Your task to perform on an android device: open app "Viber Messenger" (install if not already installed) and enter user name: "blameless@icloud.com" and password: "Yoknapatawpha" Image 0: 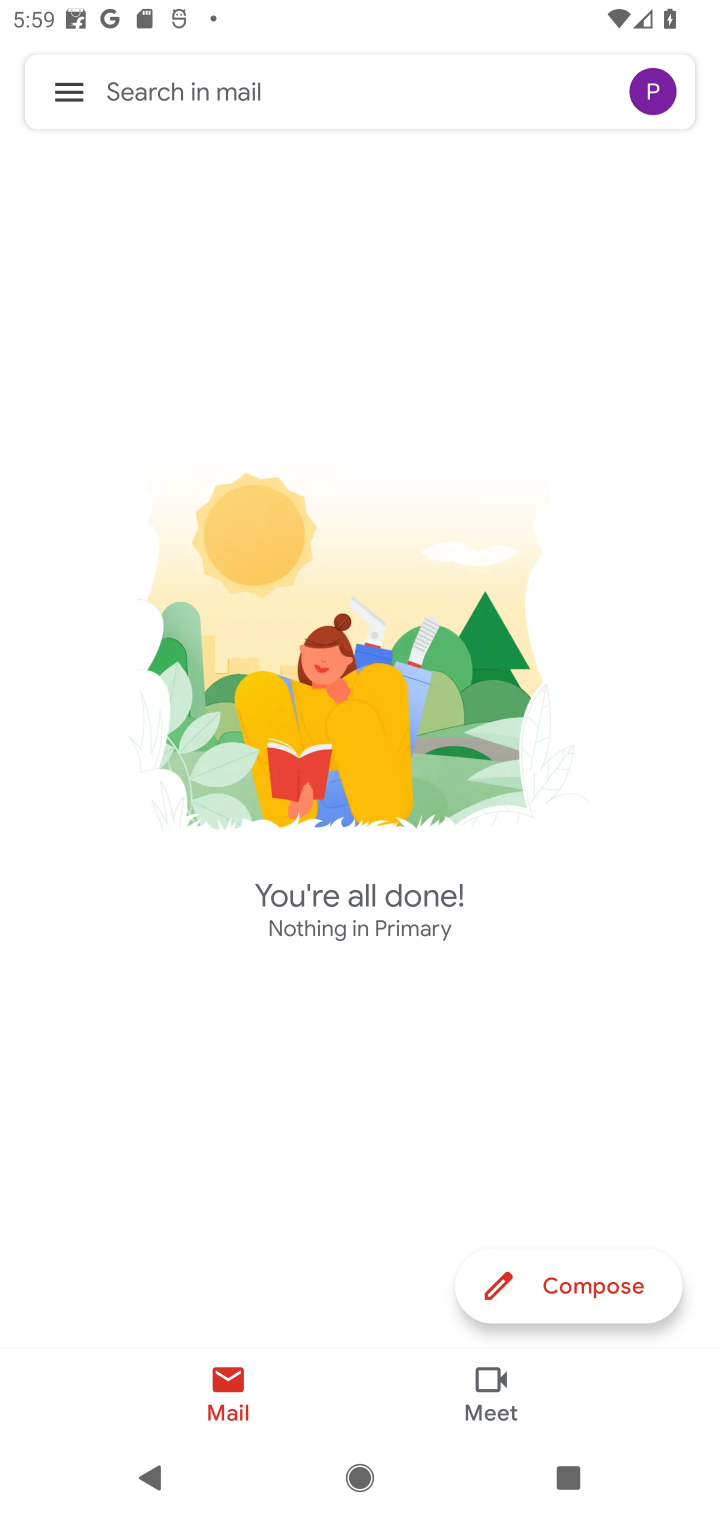
Step 0: press home button
Your task to perform on an android device: open app "Viber Messenger" (install if not already installed) and enter user name: "blameless@icloud.com" and password: "Yoknapatawpha" Image 1: 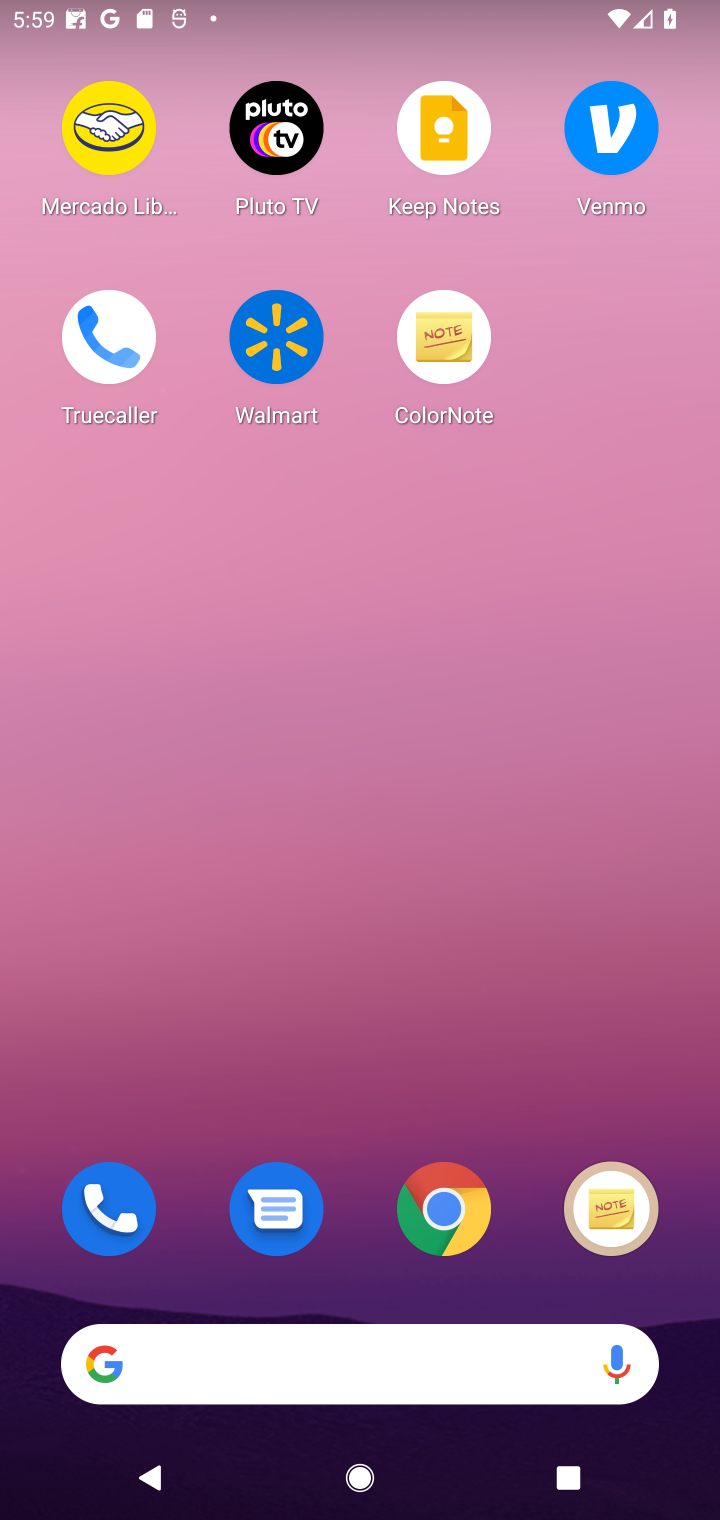
Step 1: drag from (333, 1285) to (364, 174)
Your task to perform on an android device: open app "Viber Messenger" (install if not already installed) and enter user name: "blameless@icloud.com" and password: "Yoknapatawpha" Image 2: 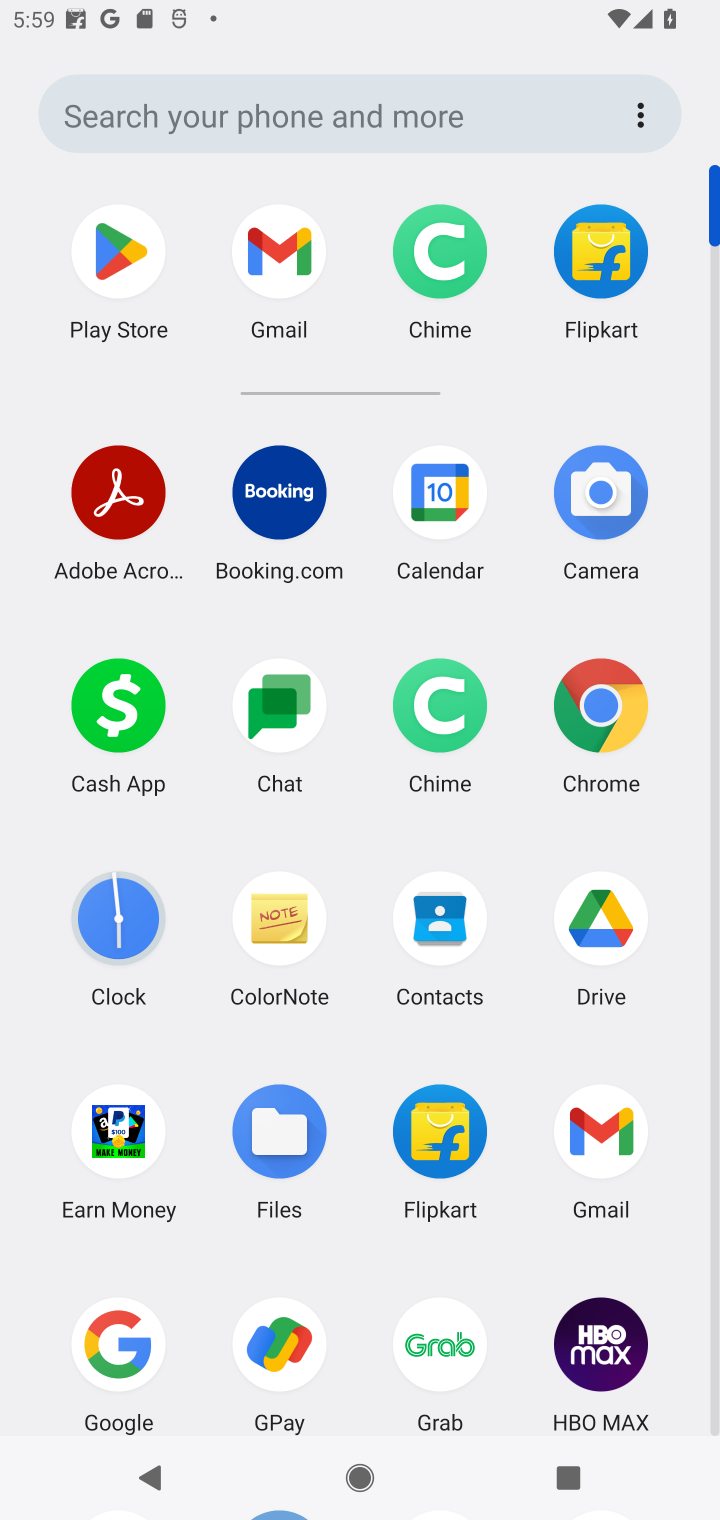
Step 2: click (122, 312)
Your task to perform on an android device: open app "Viber Messenger" (install if not already installed) and enter user name: "blameless@icloud.com" and password: "Yoknapatawpha" Image 3: 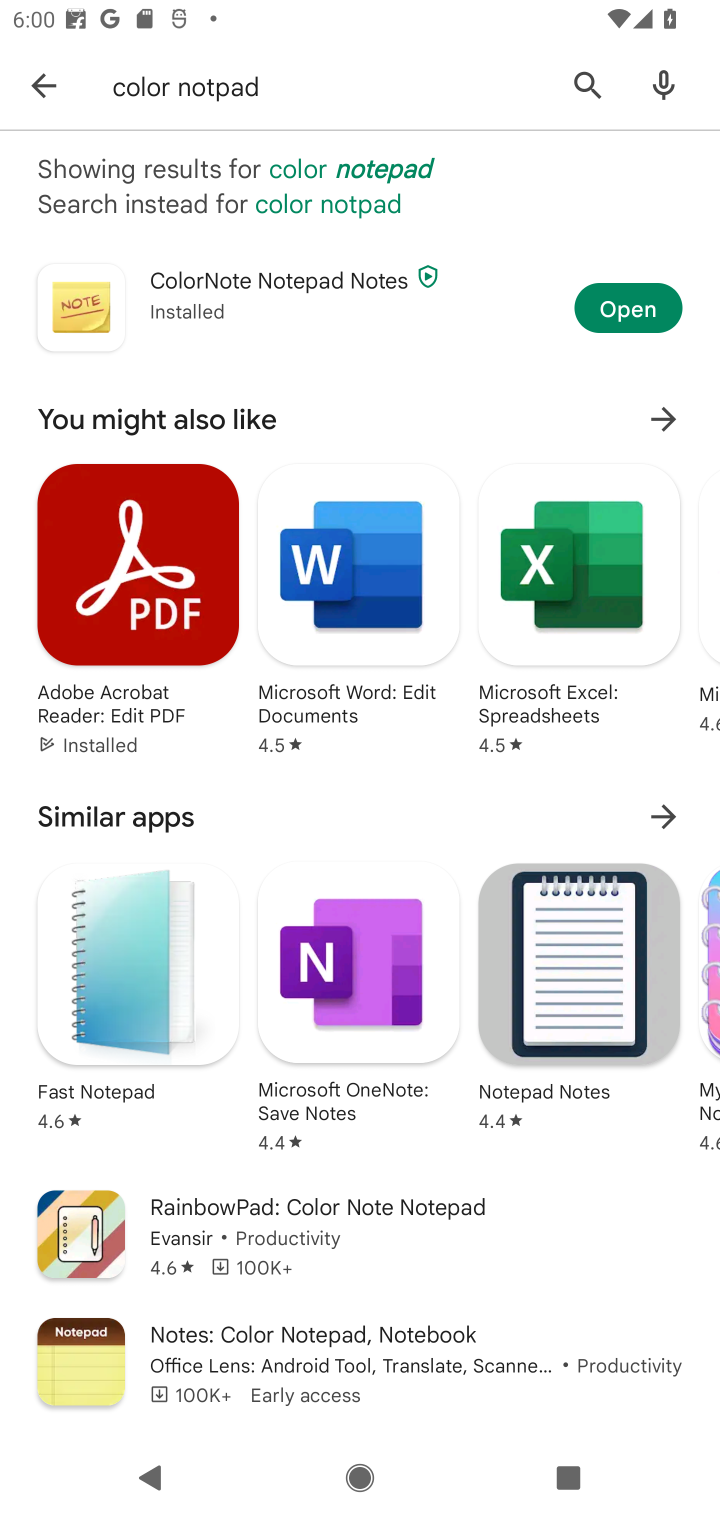
Step 3: click (564, 96)
Your task to perform on an android device: open app "Viber Messenger" (install if not already installed) and enter user name: "blameless@icloud.com" and password: "Yoknapatawpha" Image 4: 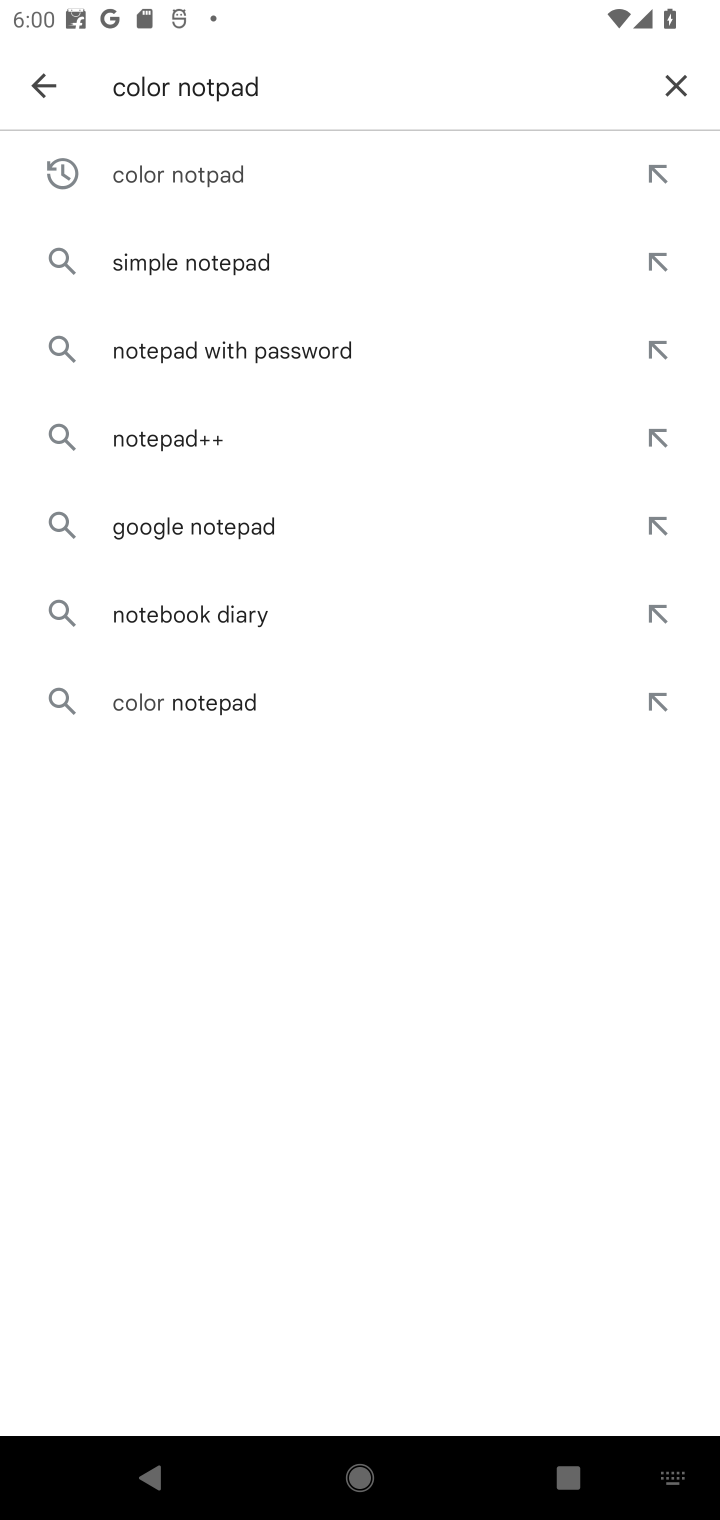
Step 4: click (655, 89)
Your task to perform on an android device: open app "Viber Messenger" (install if not already installed) and enter user name: "blameless@icloud.com" and password: "Yoknapatawpha" Image 5: 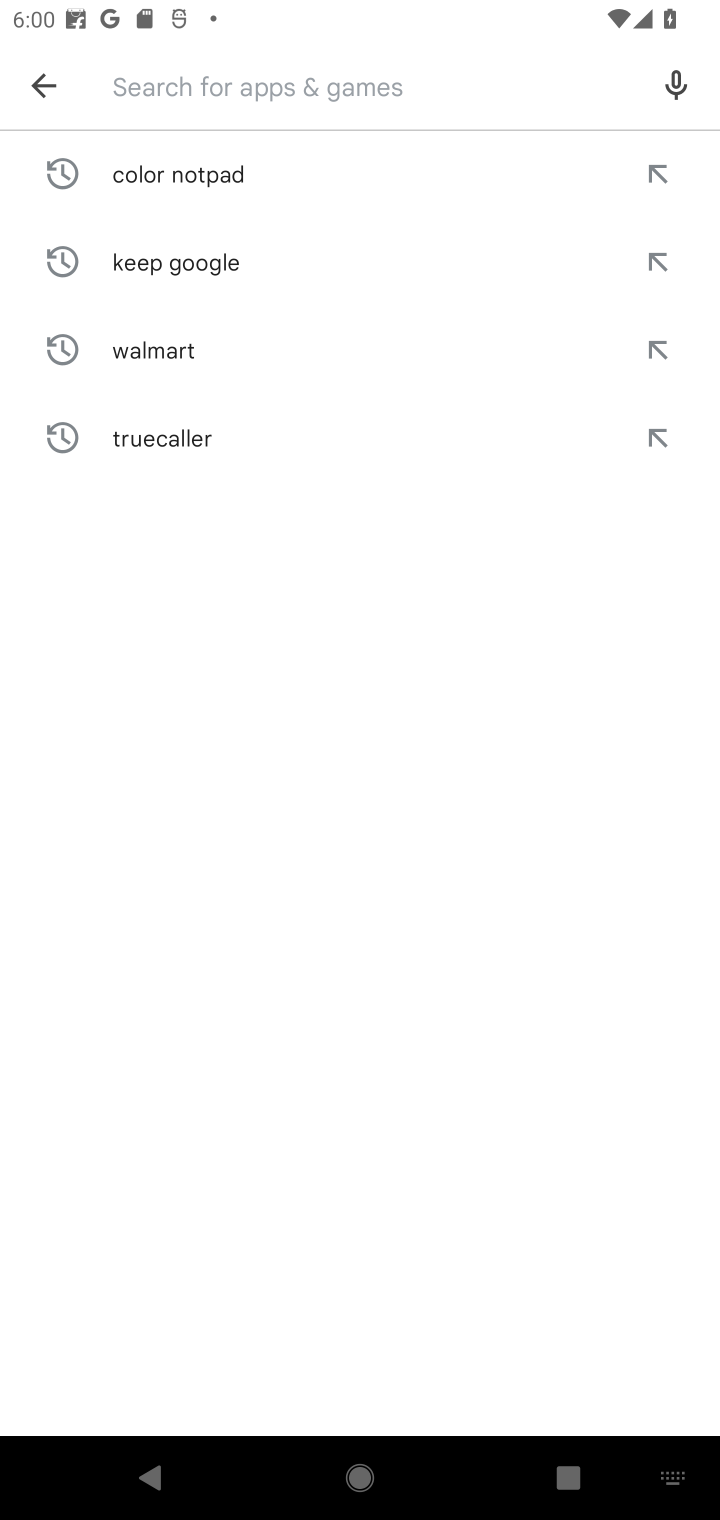
Step 5: type "messenger"
Your task to perform on an android device: open app "Viber Messenger" (install if not already installed) and enter user name: "blameless@icloud.com" and password: "Yoknapatawpha" Image 6: 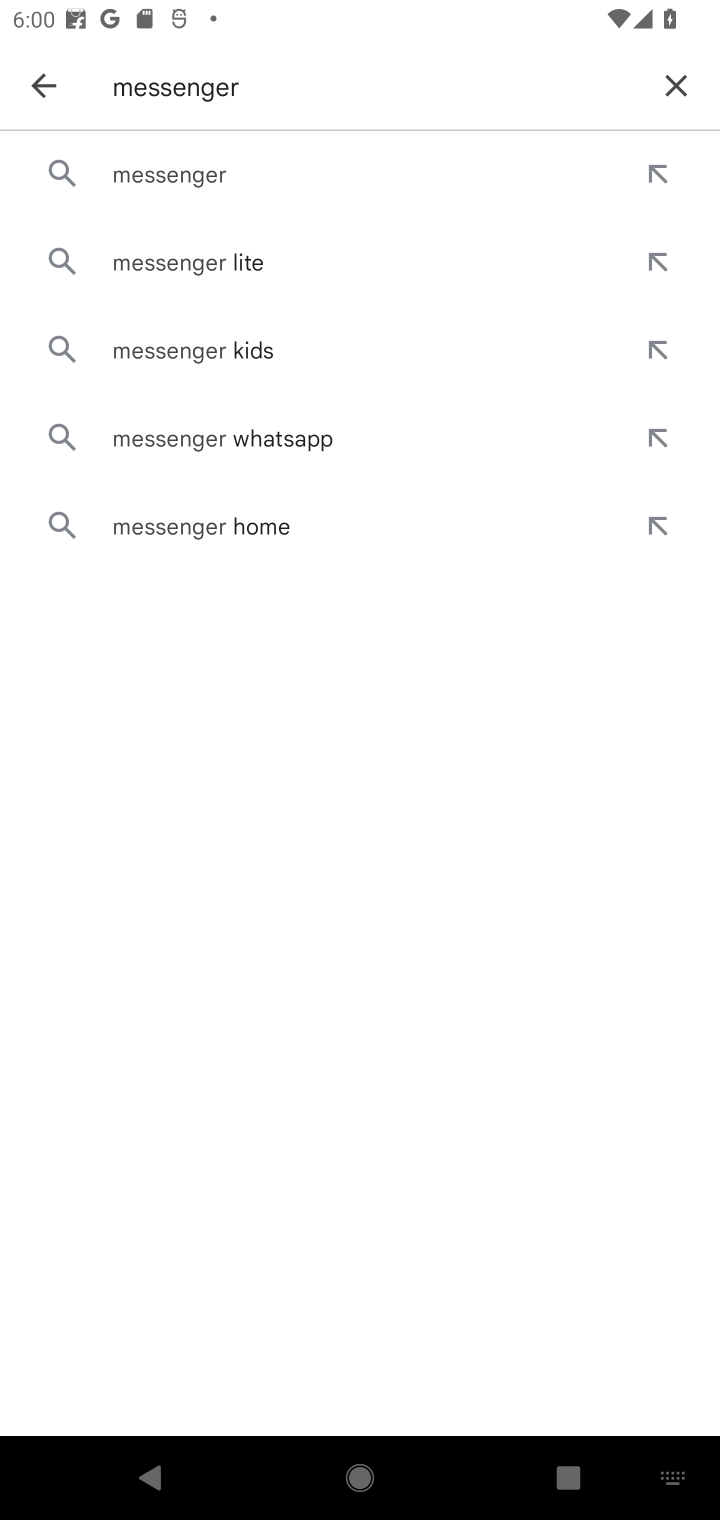
Step 6: click (273, 183)
Your task to perform on an android device: open app "Viber Messenger" (install if not already installed) and enter user name: "blameless@icloud.com" and password: "Yoknapatawpha" Image 7: 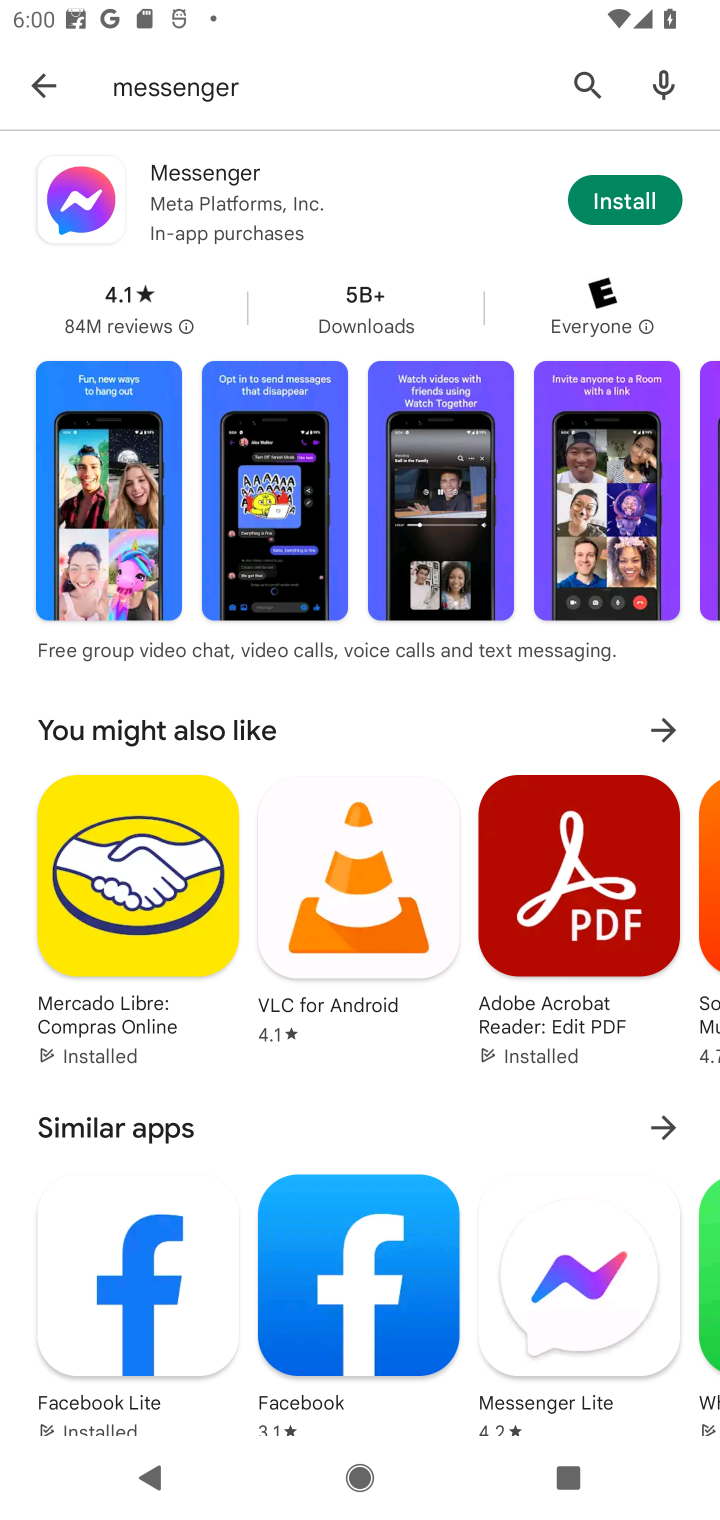
Step 7: click (560, 197)
Your task to perform on an android device: open app "Viber Messenger" (install if not already installed) and enter user name: "blameless@icloud.com" and password: "Yoknapatawpha" Image 8: 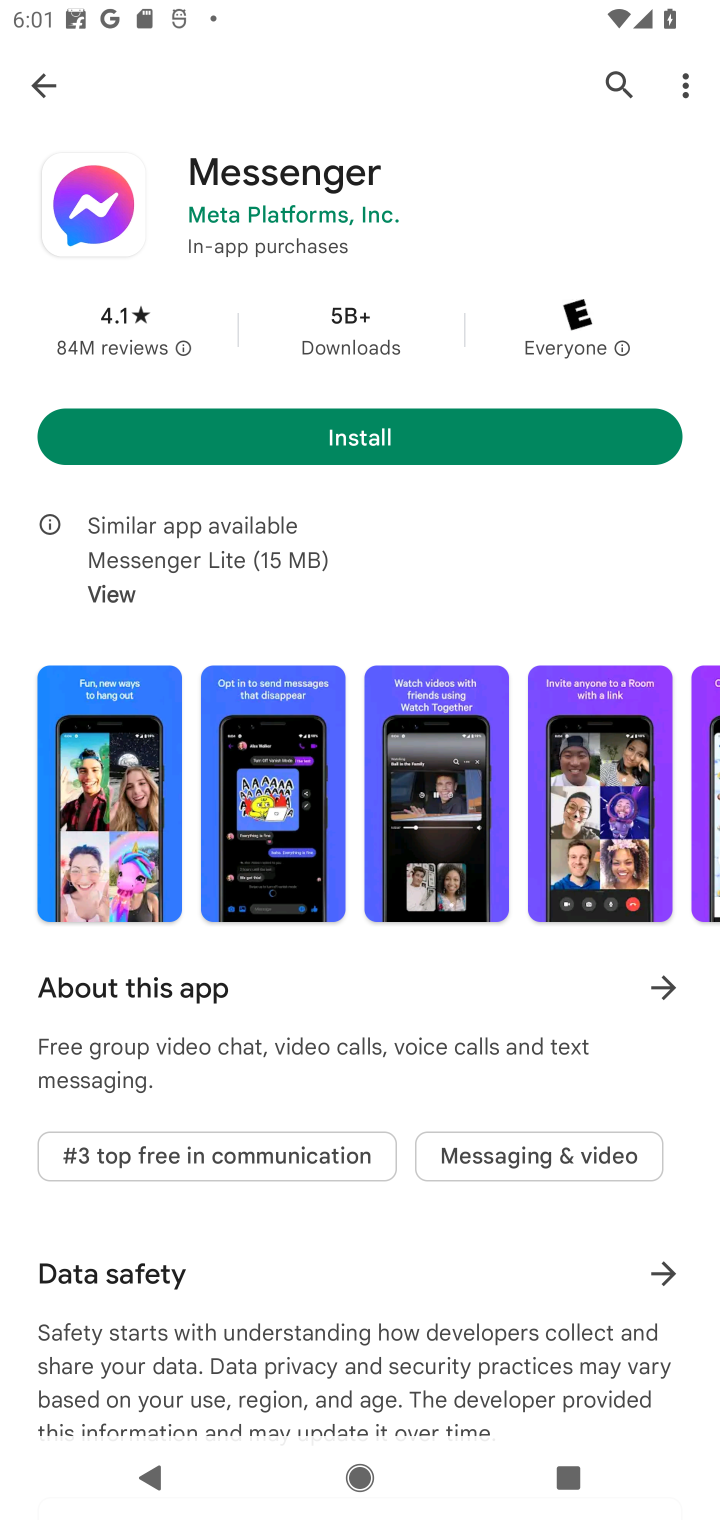
Step 8: click (418, 416)
Your task to perform on an android device: open app "Viber Messenger" (install if not already installed) and enter user name: "blameless@icloud.com" and password: "Yoknapatawpha" Image 9: 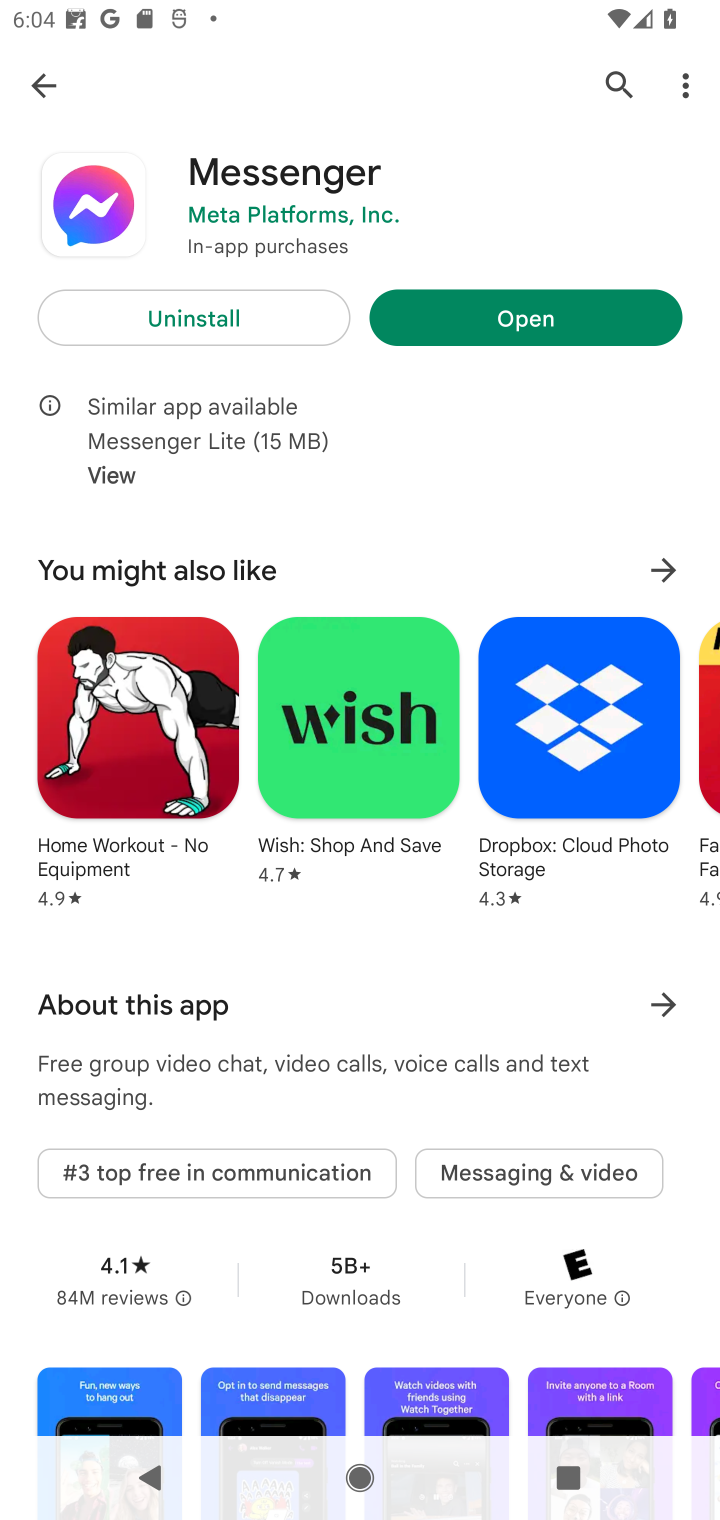
Step 9: click (520, 311)
Your task to perform on an android device: open app "Viber Messenger" (install if not already installed) and enter user name: "blameless@icloud.com" and password: "Yoknapatawpha" Image 10: 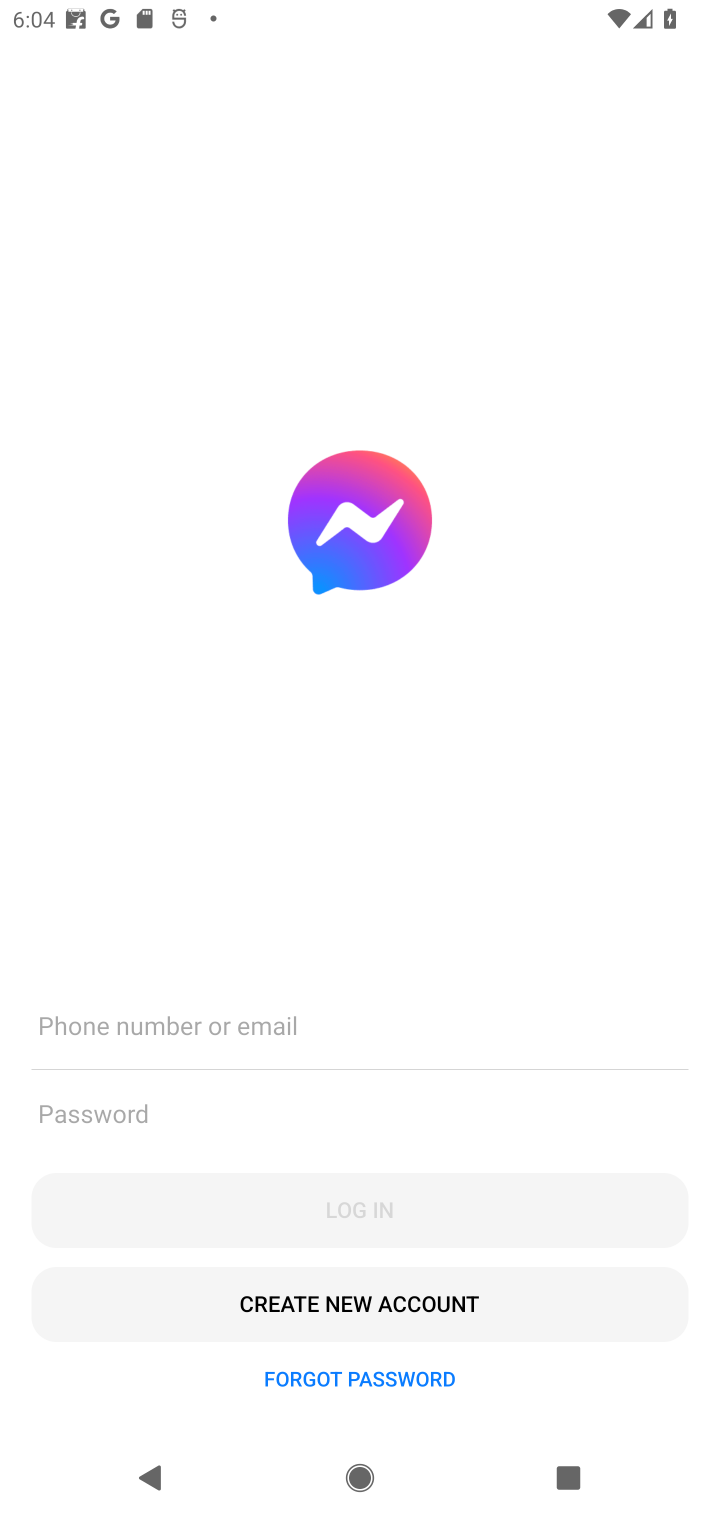
Step 10: click (217, 1015)
Your task to perform on an android device: open app "Viber Messenger" (install if not already installed) and enter user name: "blameless@icloud.com" and password: "Yoknapatawpha" Image 11: 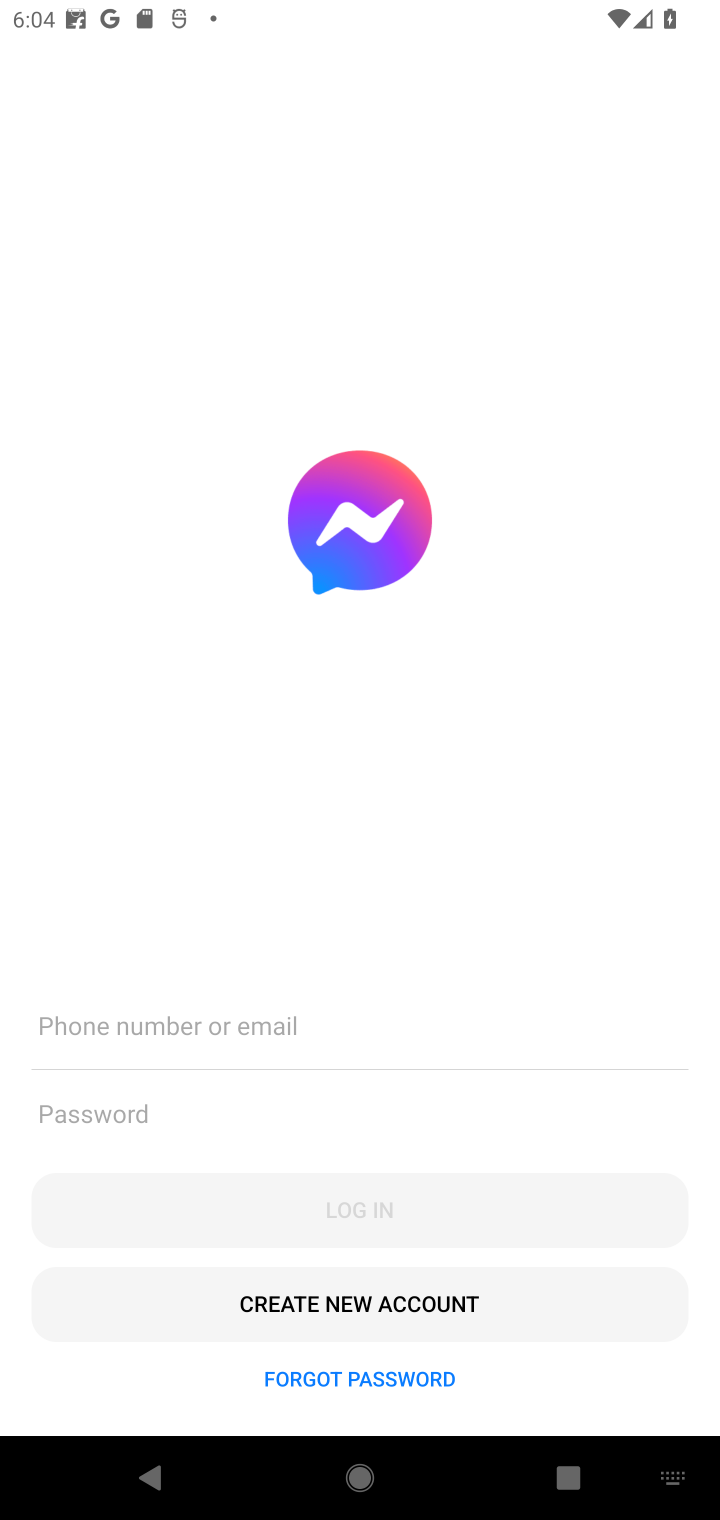
Step 11: type "blameless@icloud.com"
Your task to perform on an android device: open app "Viber Messenger" (install if not already installed) and enter user name: "blameless@icloud.com" and password: "Yoknapatawpha" Image 12: 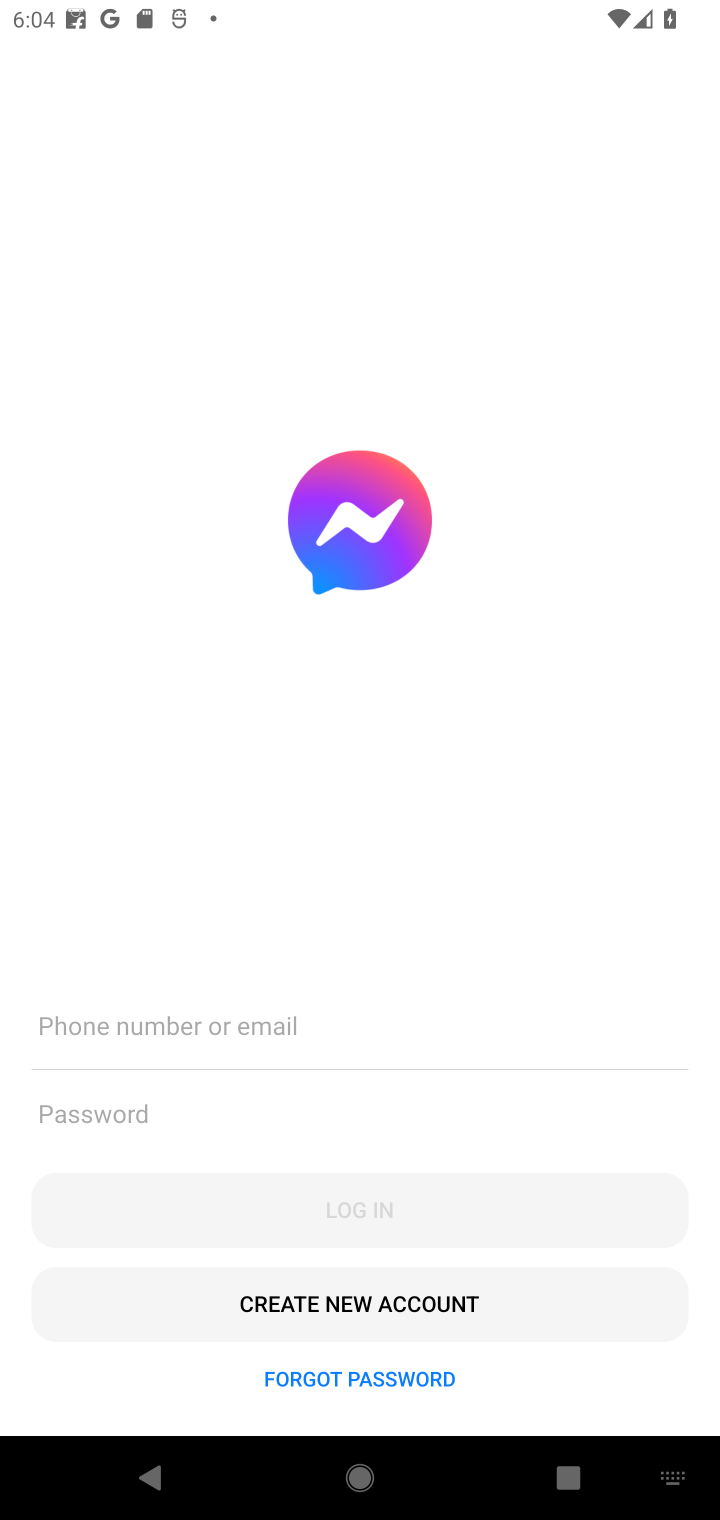
Step 12: click (164, 1112)
Your task to perform on an android device: open app "Viber Messenger" (install if not already installed) and enter user name: "blameless@icloud.com" and password: "Yoknapatawpha" Image 13: 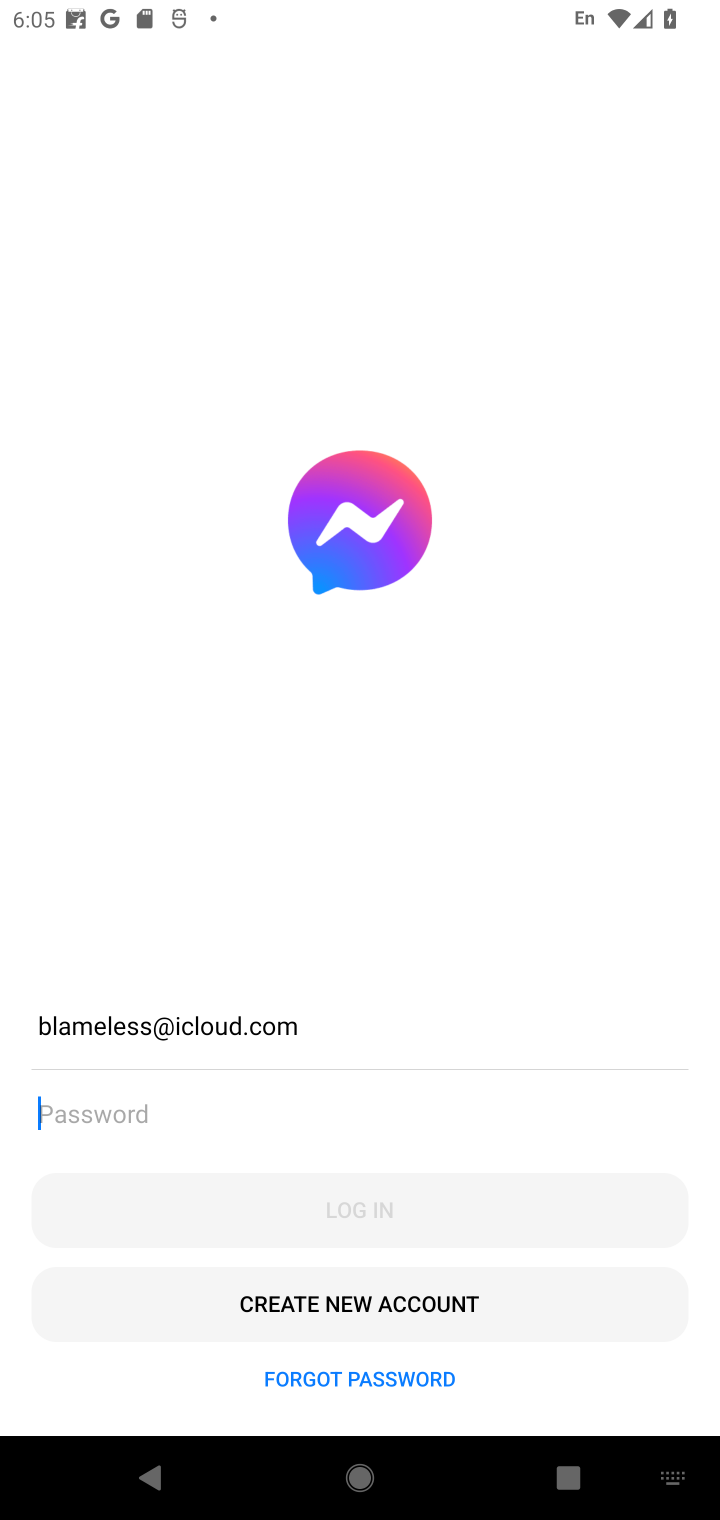
Step 13: click (164, 1112)
Your task to perform on an android device: open app "Viber Messenger" (install if not already installed) and enter user name: "blameless@icloud.com" and password: "Yoknapatawpha" Image 14: 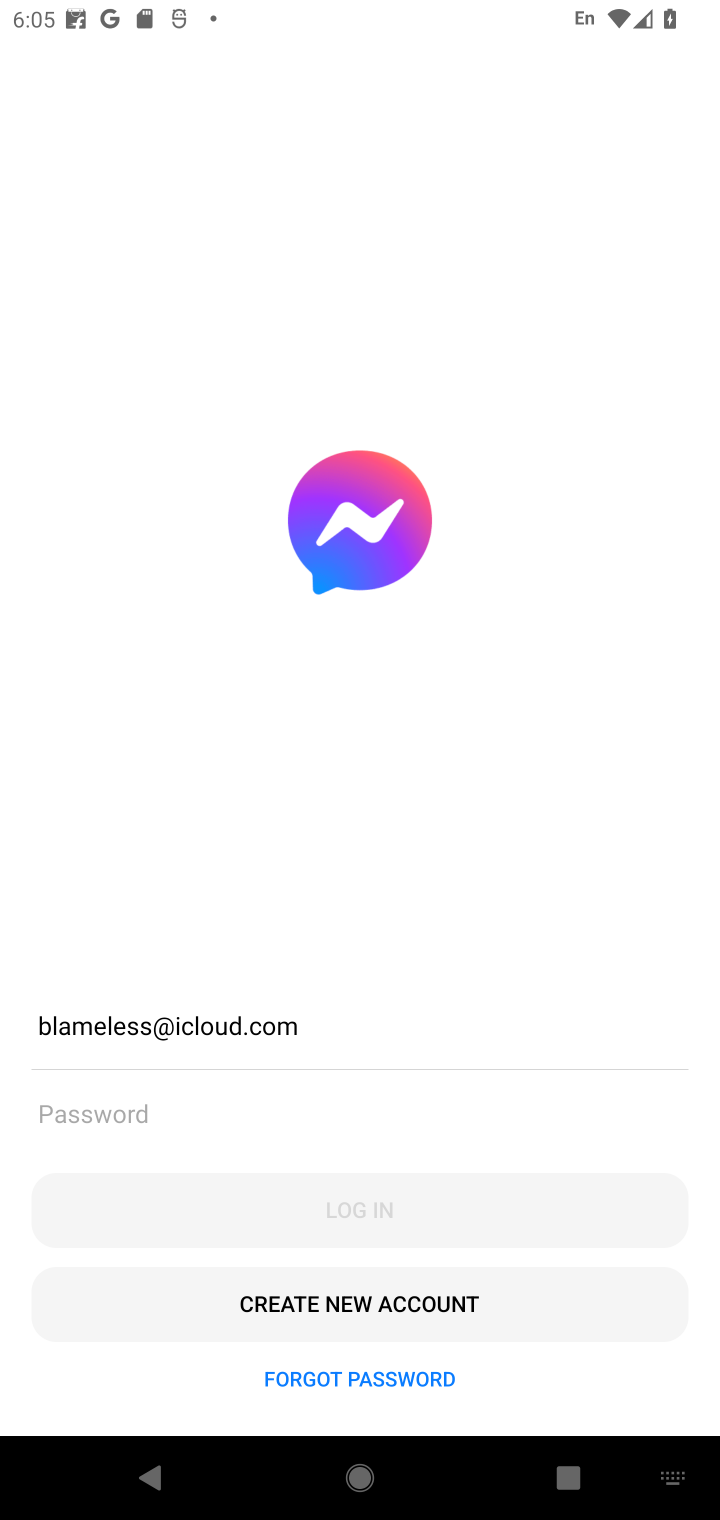
Step 14: click (164, 1112)
Your task to perform on an android device: open app "Viber Messenger" (install if not already installed) and enter user name: "blameless@icloud.com" and password: "Yoknapatawpha" Image 15: 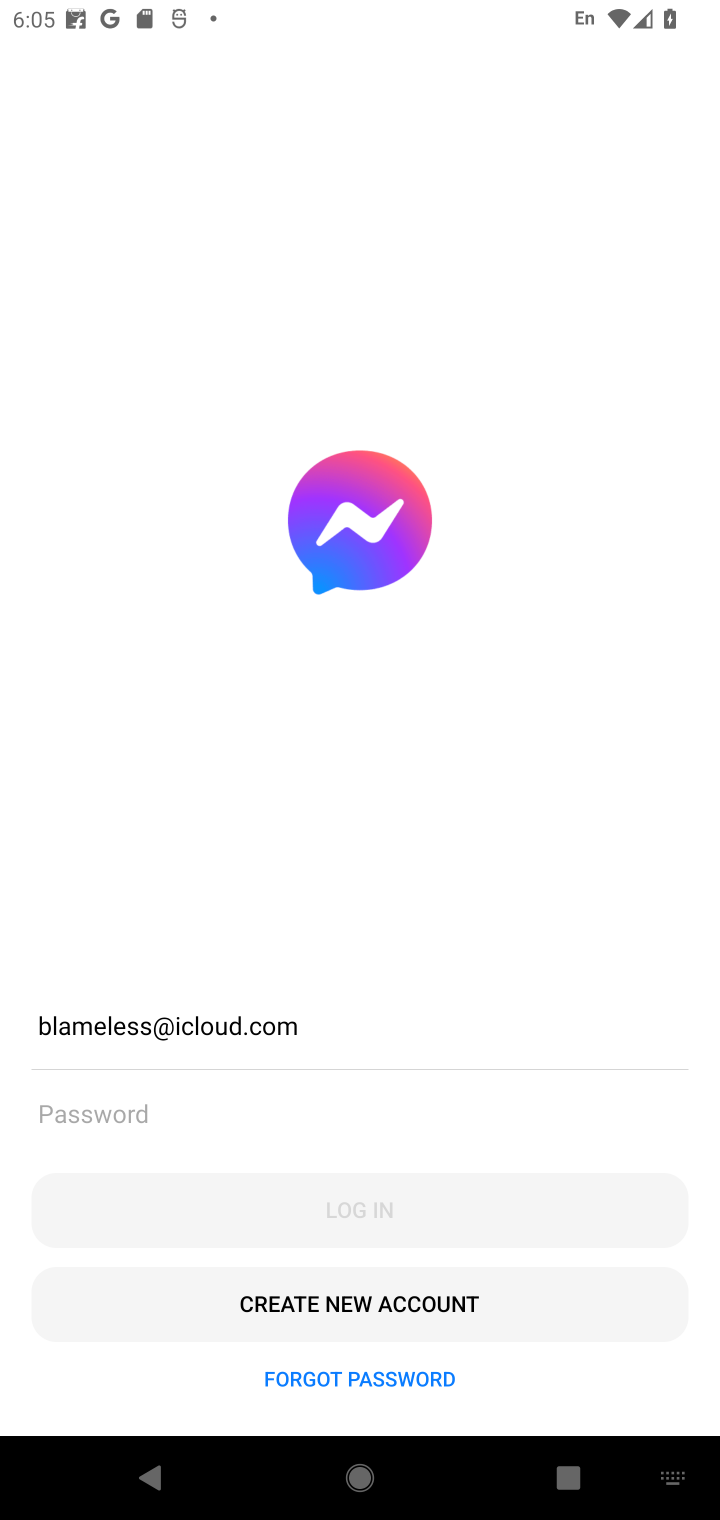
Step 15: click (142, 1111)
Your task to perform on an android device: open app "Viber Messenger" (install if not already installed) and enter user name: "blameless@icloud.com" and password: "Yoknapatawpha" Image 16: 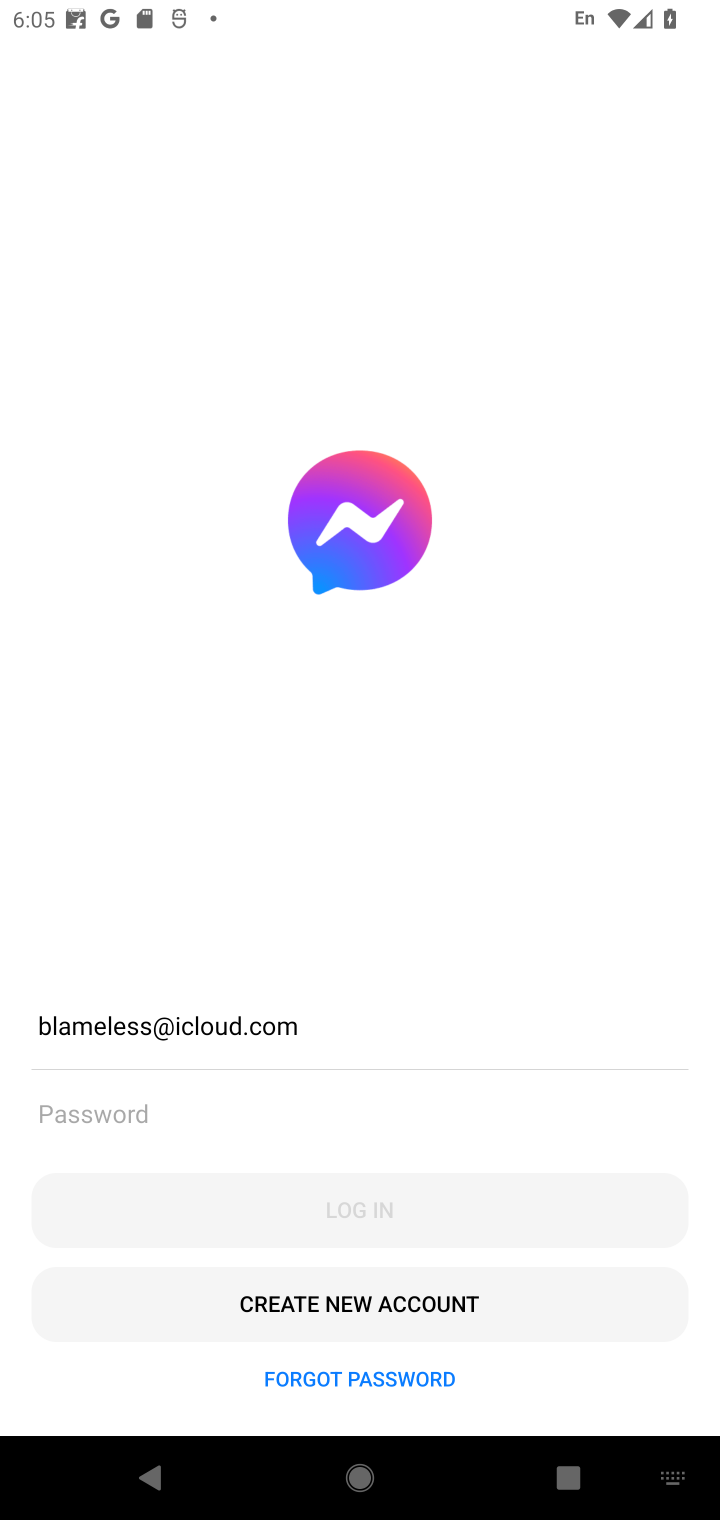
Step 16: type "Yoknapatawpha"
Your task to perform on an android device: open app "Viber Messenger" (install if not already installed) and enter user name: "blameless@icloud.com" and password: "Yoknapatawpha" Image 17: 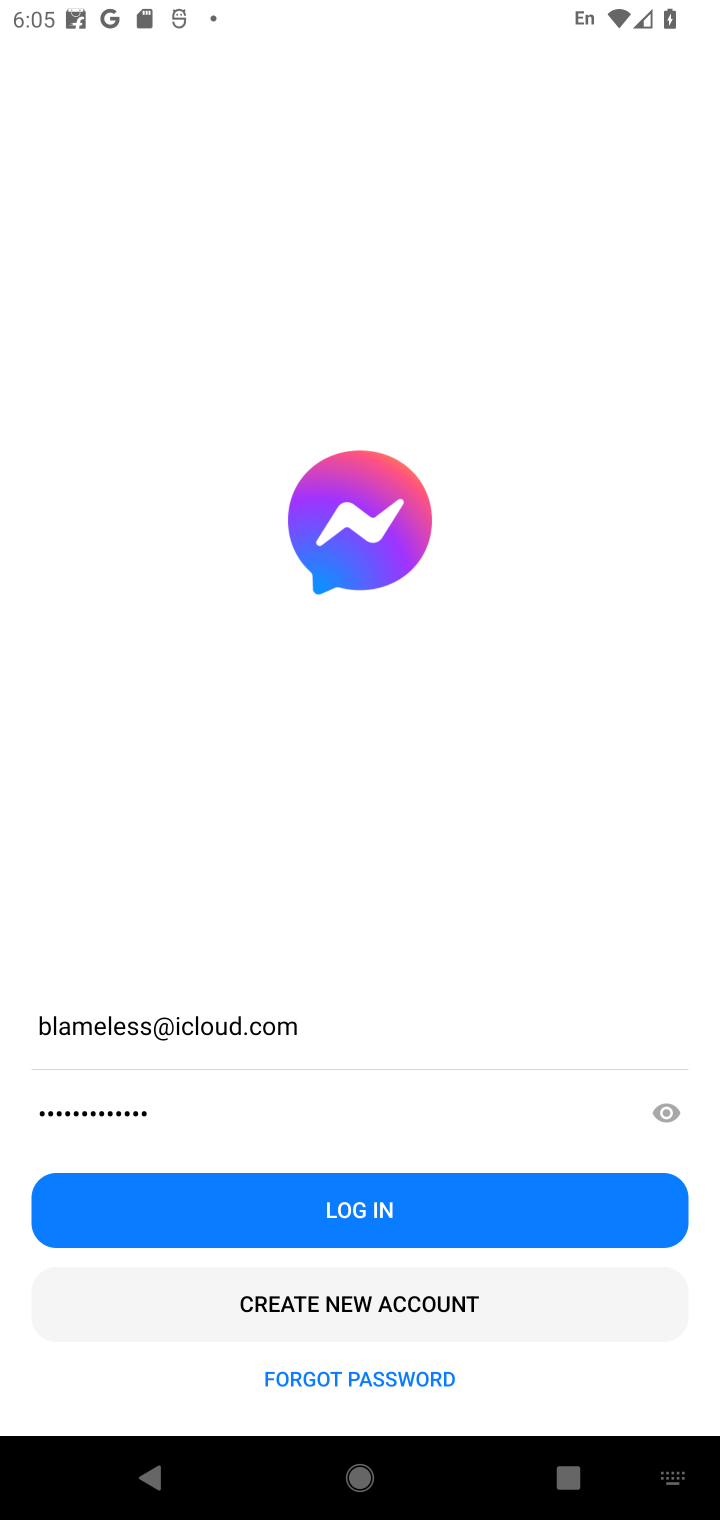
Step 17: click (276, 1208)
Your task to perform on an android device: open app "Viber Messenger" (install if not already installed) and enter user name: "blameless@icloud.com" and password: "Yoknapatawpha" Image 18: 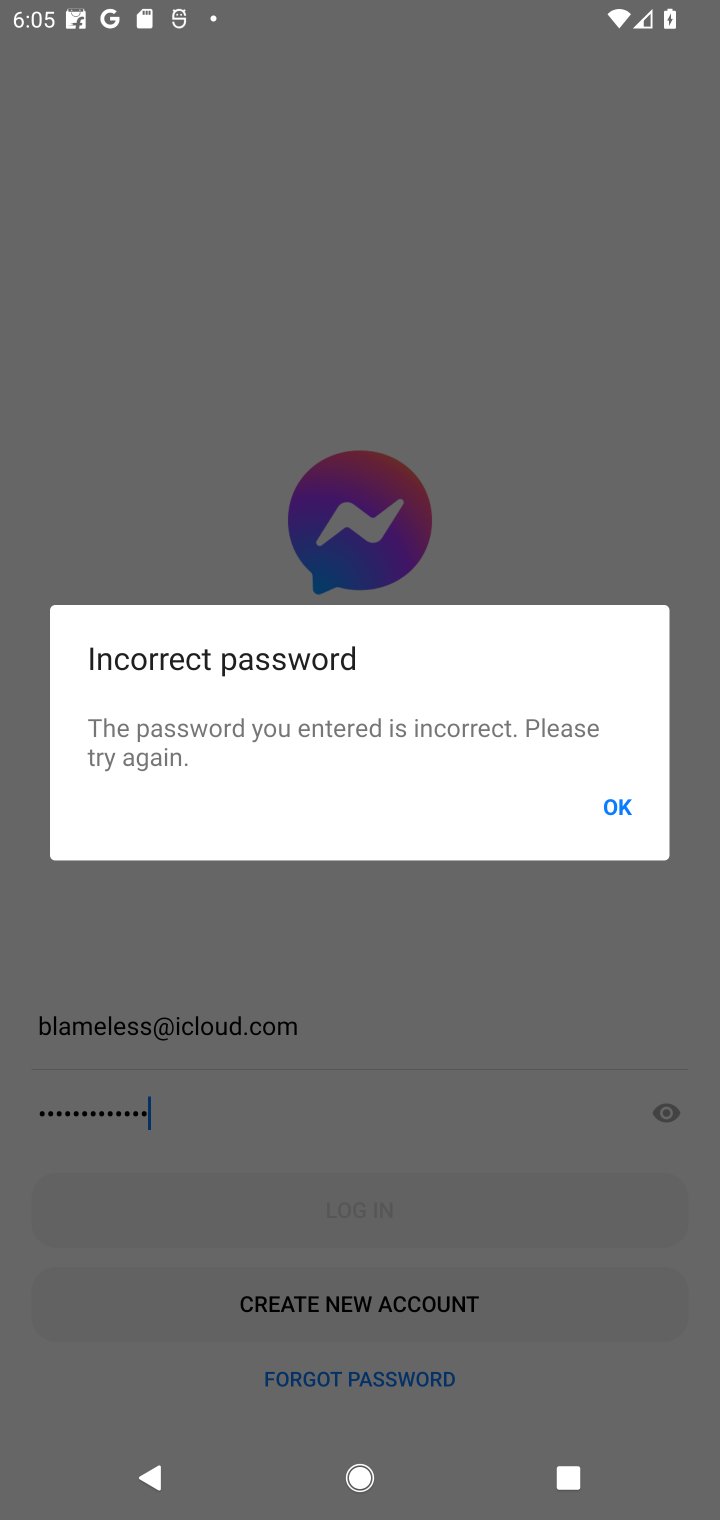
Step 18: task complete